Your task to perform on an android device: Go to network settings Image 0: 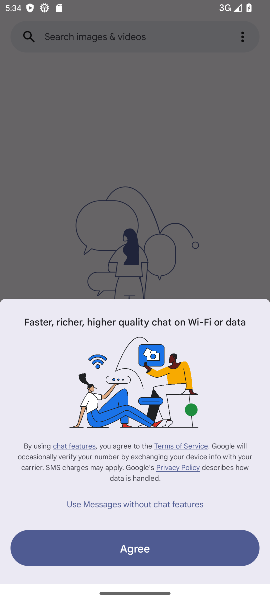
Step 0: press home button
Your task to perform on an android device: Go to network settings Image 1: 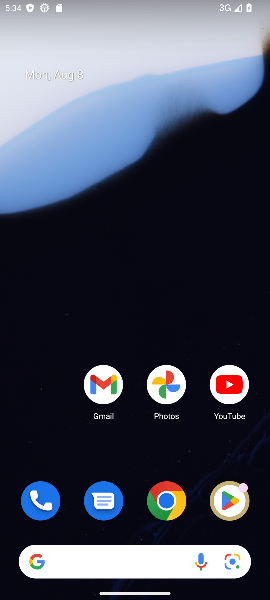
Step 1: drag from (18, 571) to (77, 414)
Your task to perform on an android device: Go to network settings Image 2: 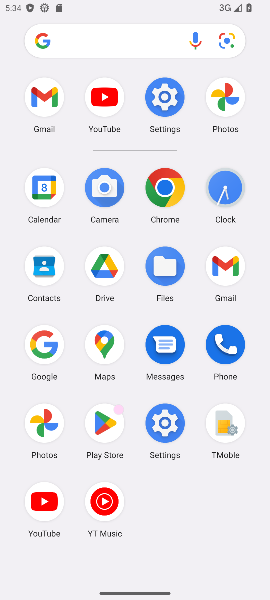
Step 2: click (173, 418)
Your task to perform on an android device: Go to network settings Image 3: 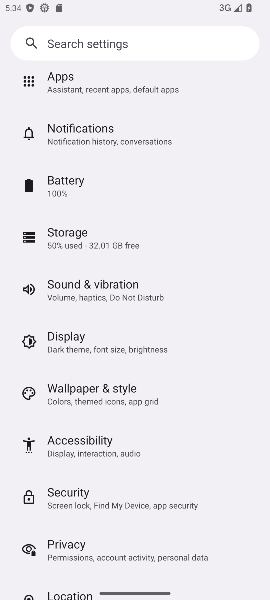
Step 3: click (202, 511)
Your task to perform on an android device: Go to network settings Image 4: 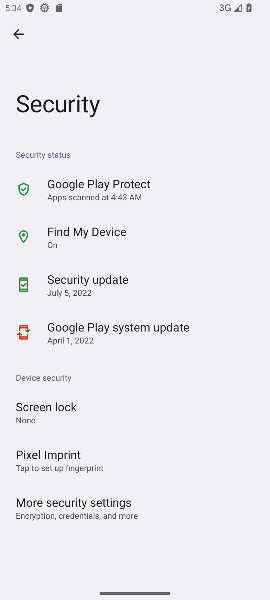
Step 4: click (14, 31)
Your task to perform on an android device: Go to network settings Image 5: 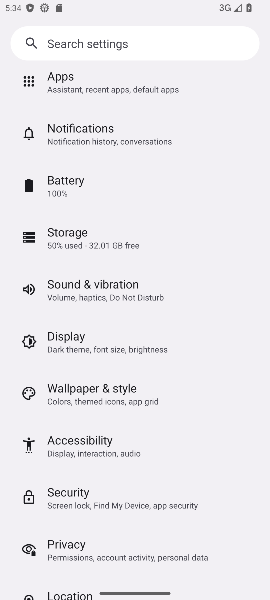
Step 5: click (202, 110)
Your task to perform on an android device: Go to network settings Image 6: 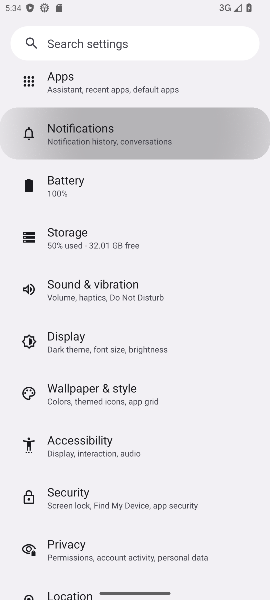
Step 6: drag from (201, 118) to (227, 446)
Your task to perform on an android device: Go to network settings Image 7: 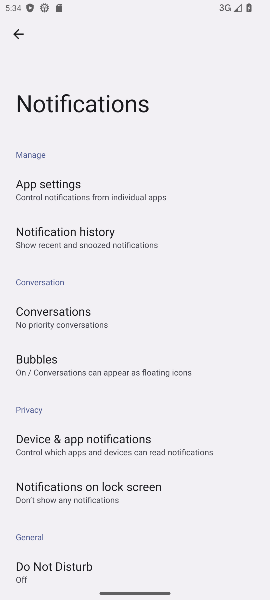
Step 7: click (12, 34)
Your task to perform on an android device: Go to network settings Image 8: 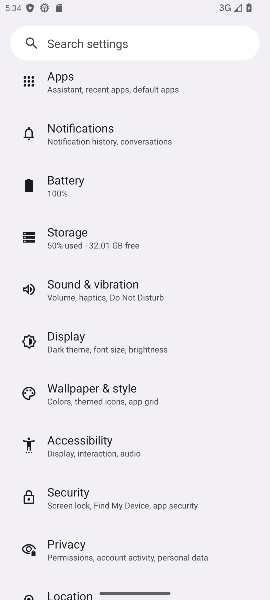
Step 8: drag from (218, 81) to (232, 444)
Your task to perform on an android device: Go to network settings Image 9: 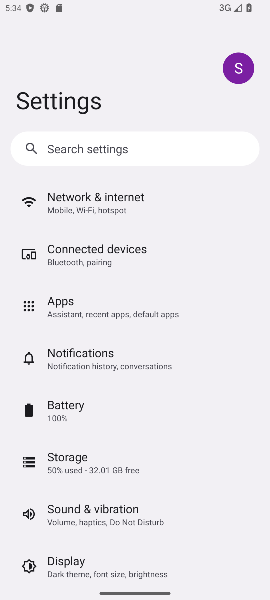
Step 9: click (127, 201)
Your task to perform on an android device: Go to network settings Image 10: 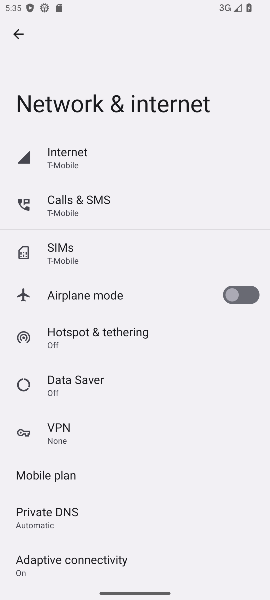
Step 10: task complete